Your task to perform on an android device: turn off wifi Image 0: 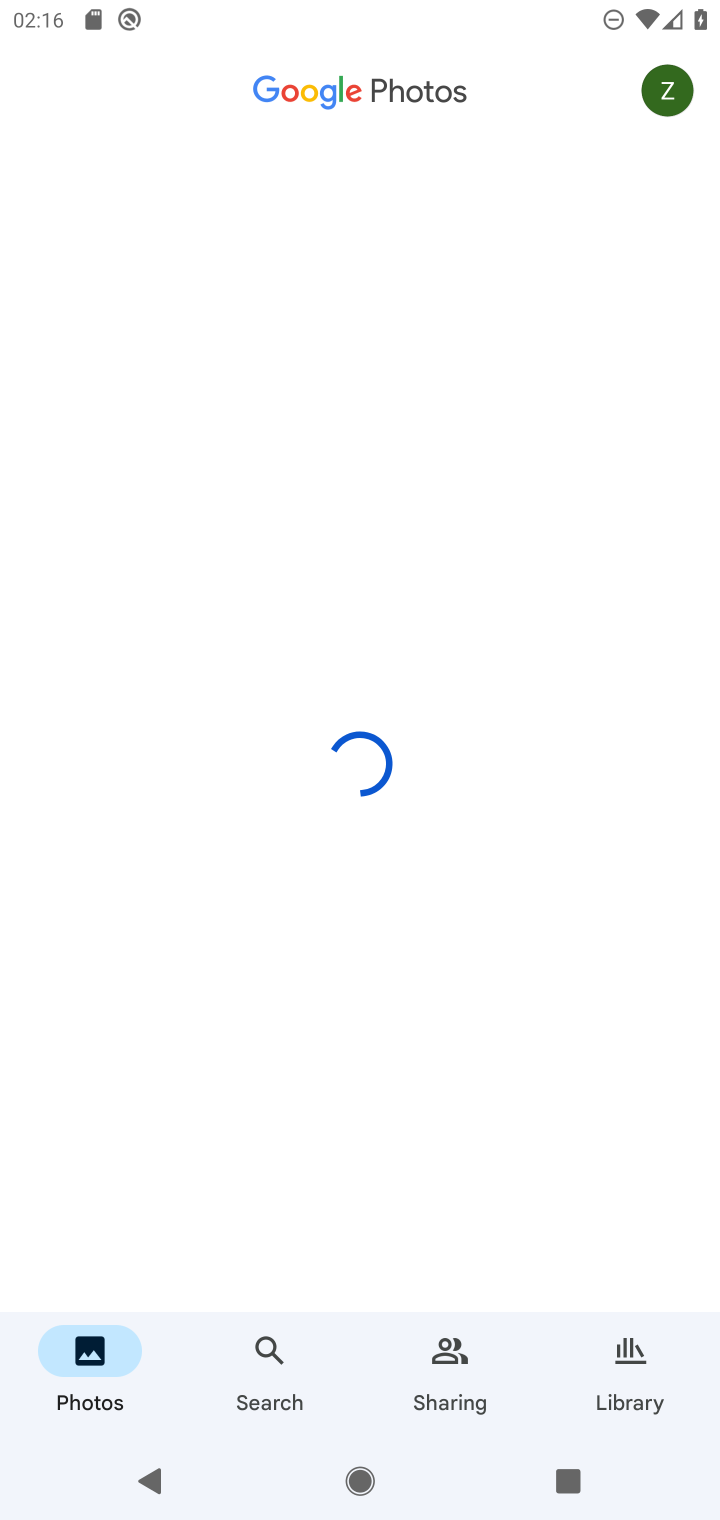
Step 0: press home button
Your task to perform on an android device: turn off wifi Image 1: 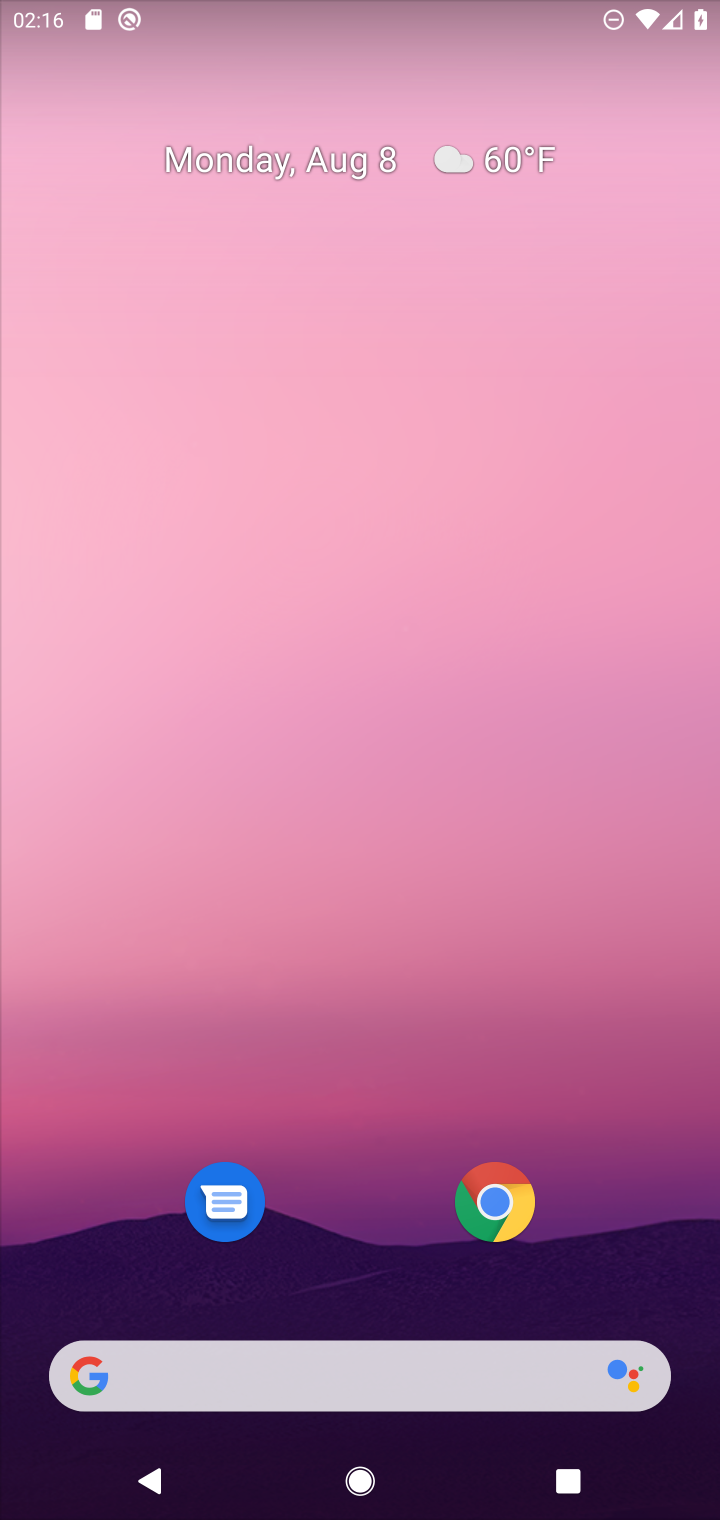
Step 1: press home button
Your task to perform on an android device: turn off wifi Image 2: 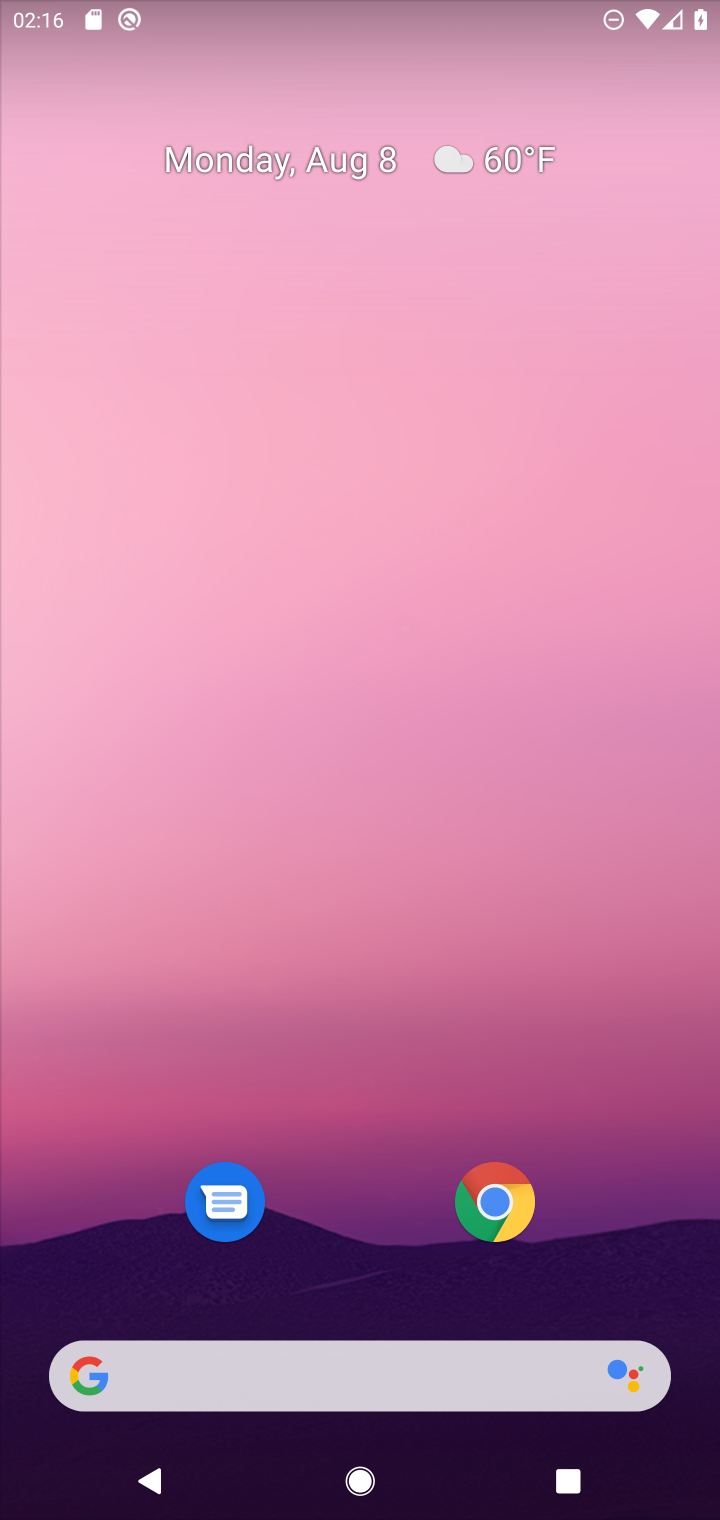
Step 2: drag from (618, 1250) to (604, 135)
Your task to perform on an android device: turn off wifi Image 3: 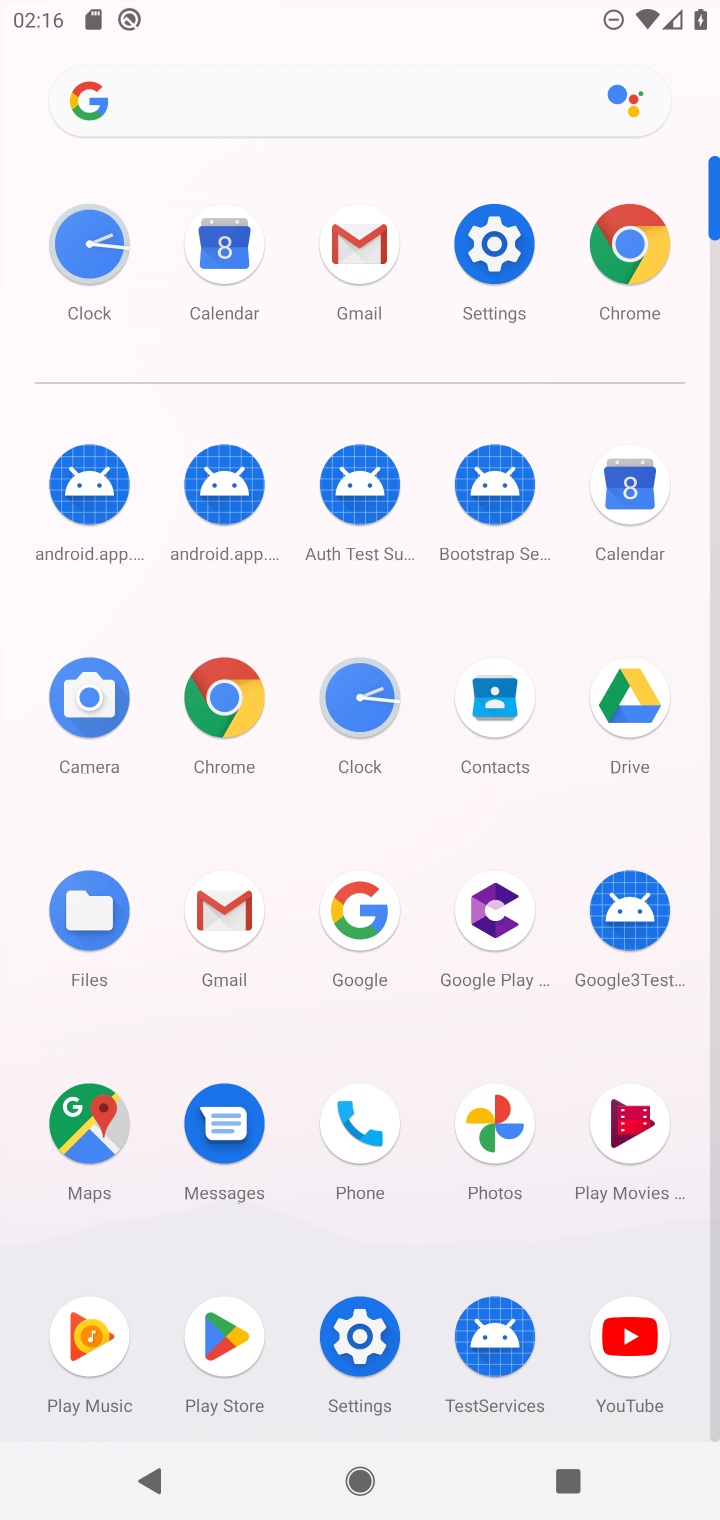
Step 3: click (510, 245)
Your task to perform on an android device: turn off wifi Image 4: 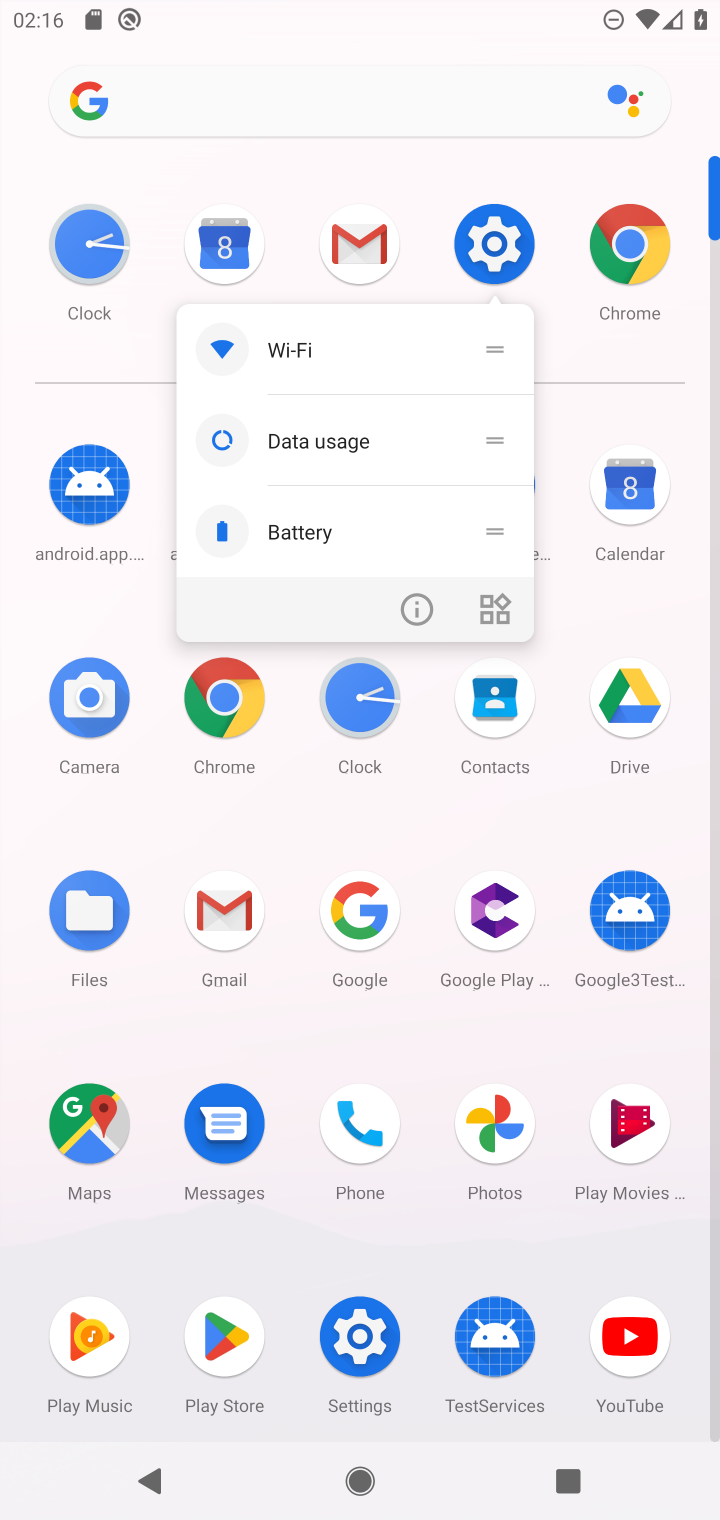
Step 4: click (473, 222)
Your task to perform on an android device: turn off wifi Image 5: 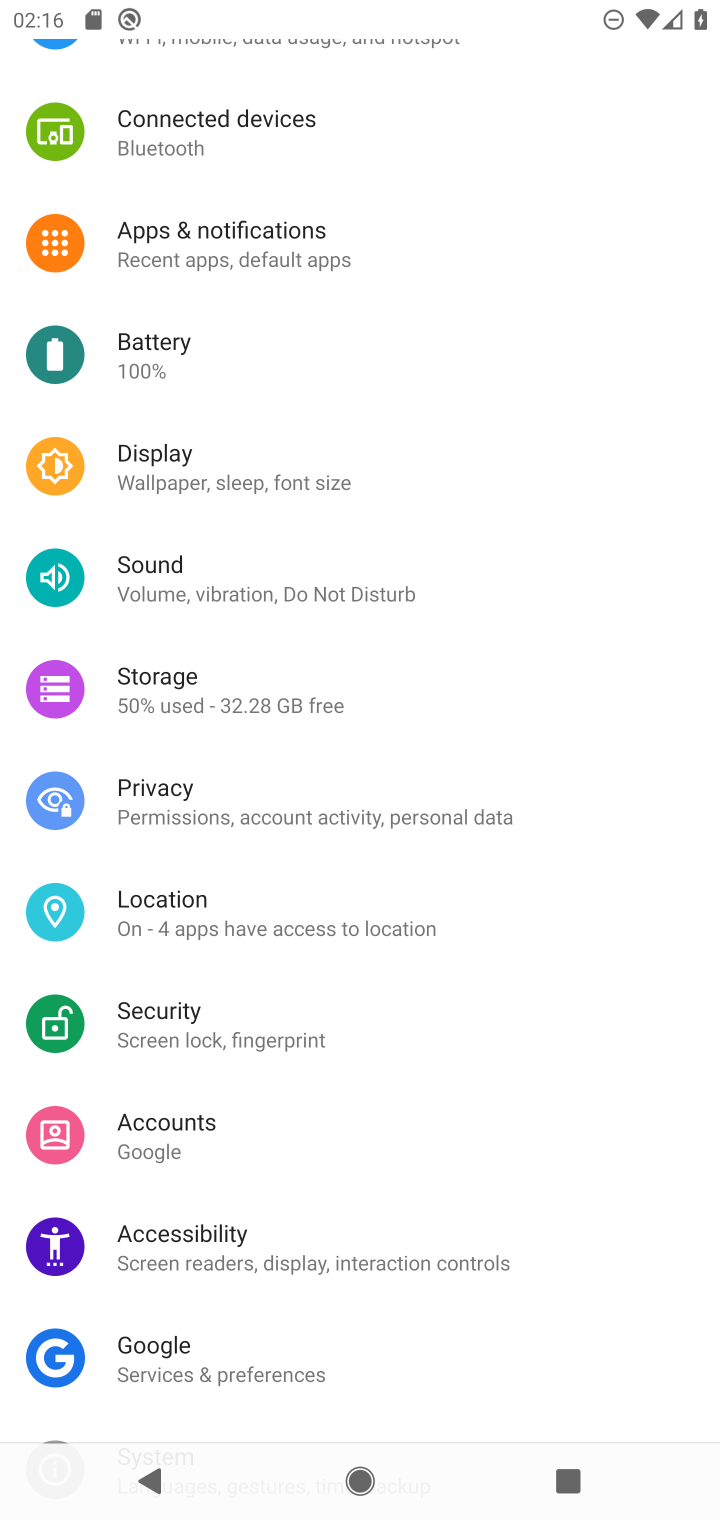
Step 5: drag from (603, 393) to (603, 780)
Your task to perform on an android device: turn off wifi Image 6: 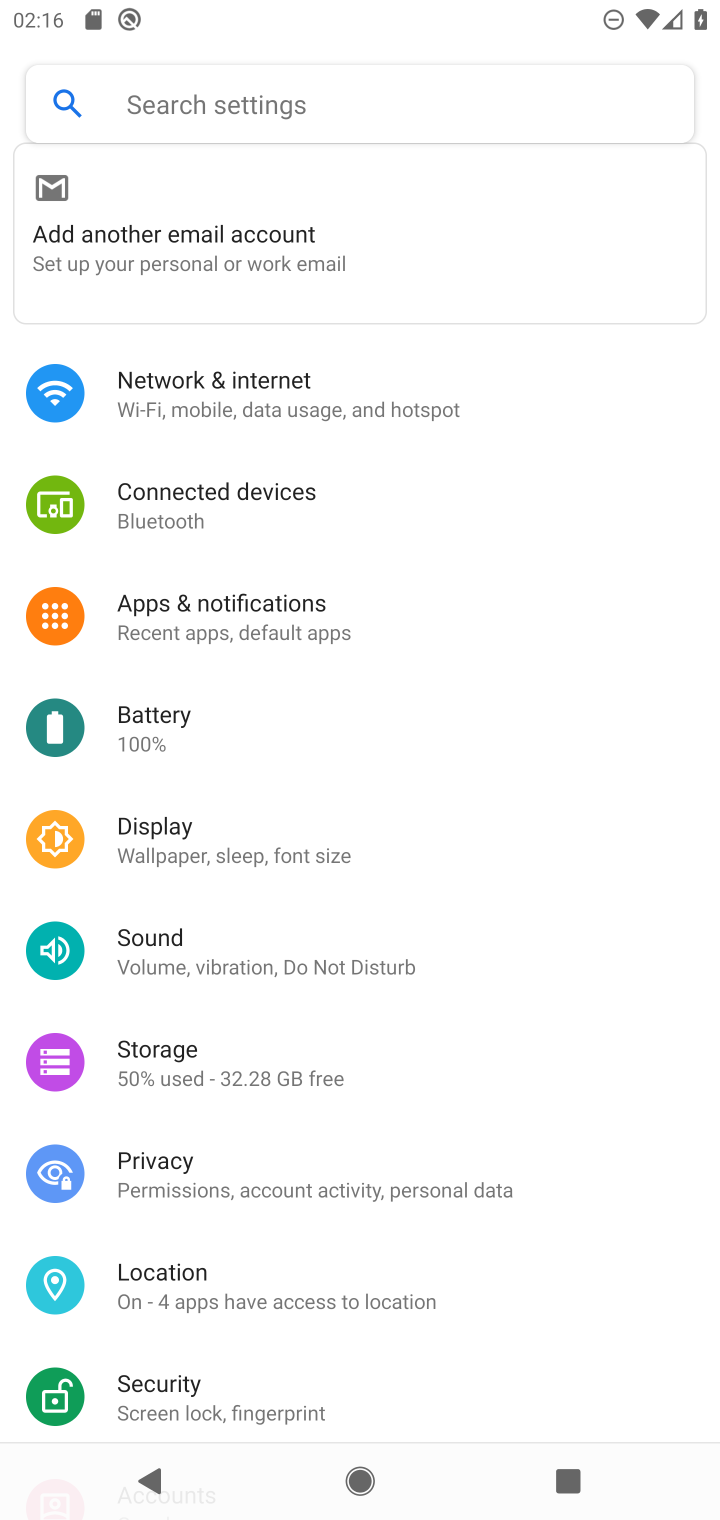
Step 6: drag from (588, 413) to (590, 740)
Your task to perform on an android device: turn off wifi Image 7: 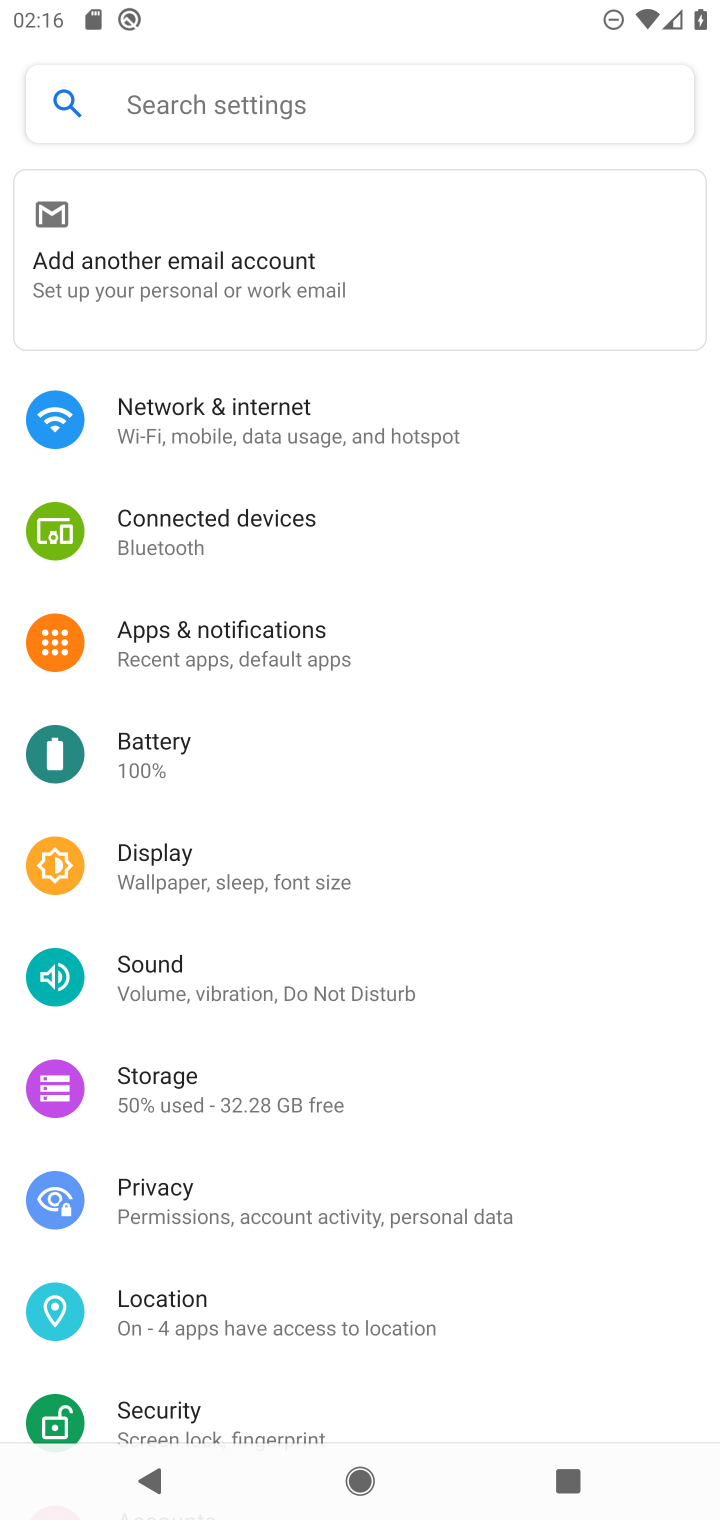
Step 7: click (446, 422)
Your task to perform on an android device: turn off wifi Image 8: 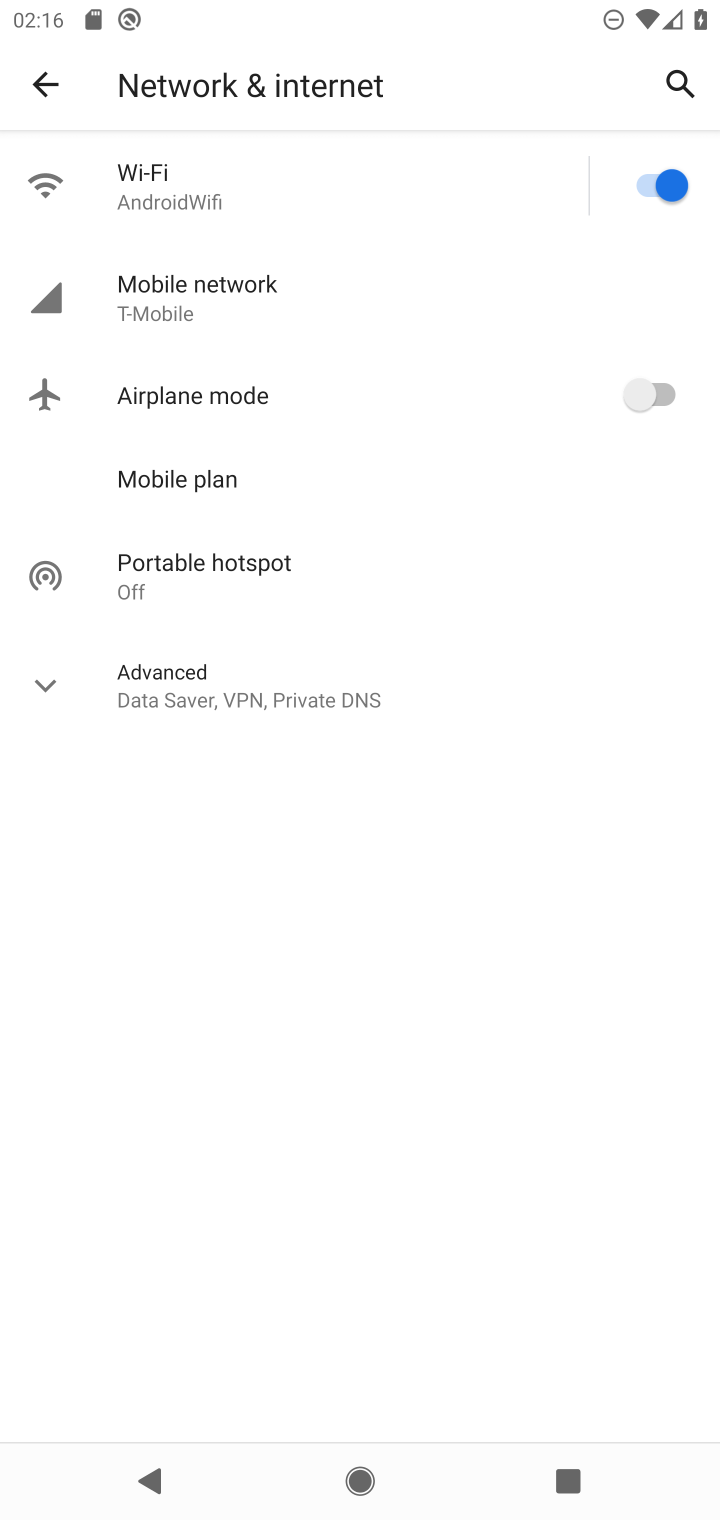
Step 8: click (653, 187)
Your task to perform on an android device: turn off wifi Image 9: 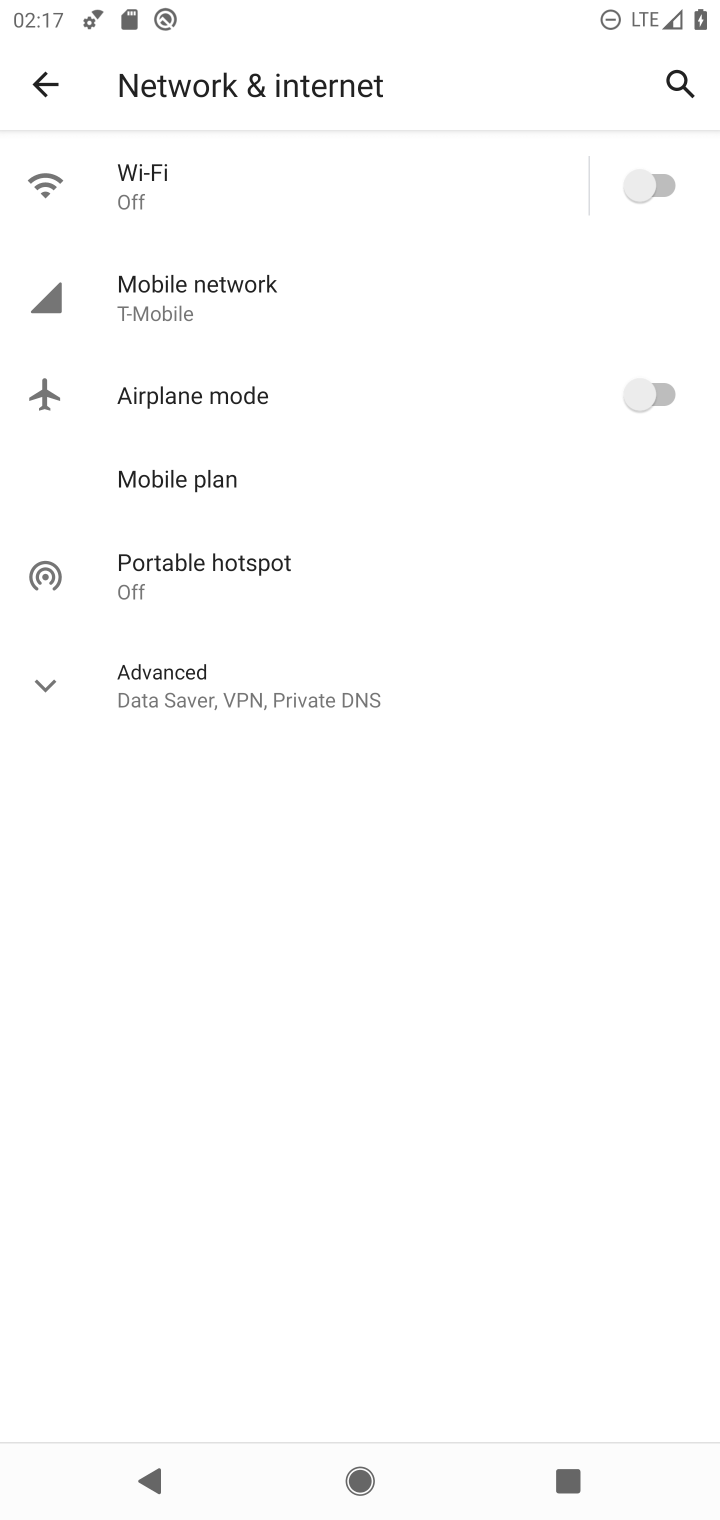
Step 9: task complete